Your task to perform on an android device: turn on notifications settings in the gmail app Image 0: 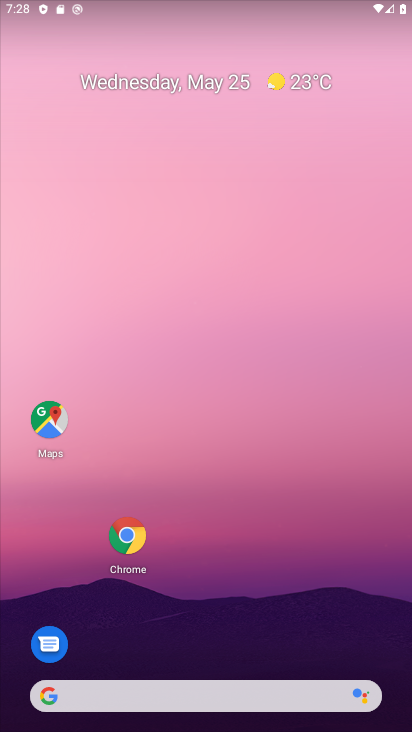
Step 0: drag from (206, 613) to (179, 27)
Your task to perform on an android device: turn on notifications settings in the gmail app Image 1: 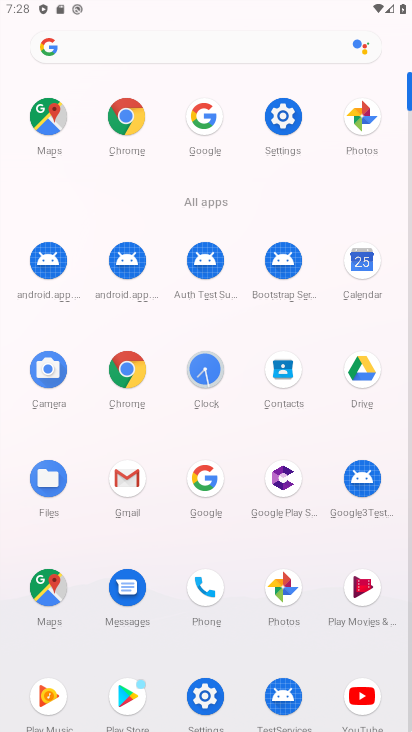
Step 1: click (128, 471)
Your task to perform on an android device: turn on notifications settings in the gmail app Image 2: 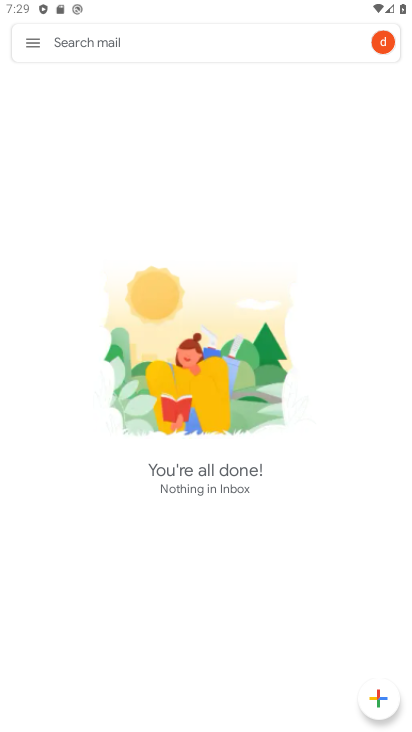
Step 2: click (128, 471)
Your task to perform on an android device: turn on notifications settings in the gmail app Image 3: 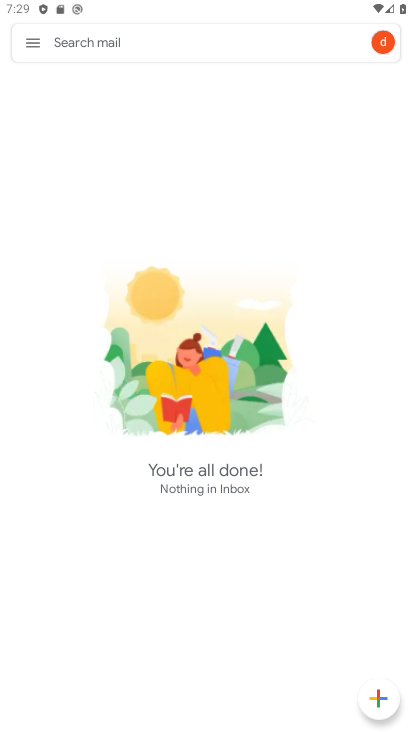
Step 3: click (35, 49)
Your task to perform on an android device: turn on notifications settings in the gmail app Image 4: 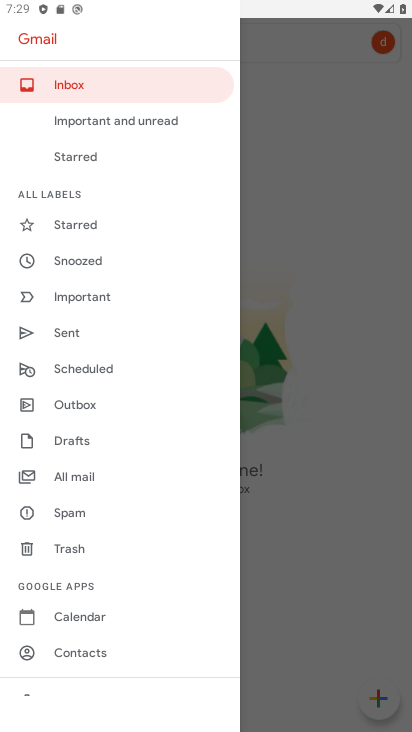
Step 4: drag from (118, 616) to (146, 168)
Your task to perform on an android device: turn on notifications settings in the gmail app Image 5: 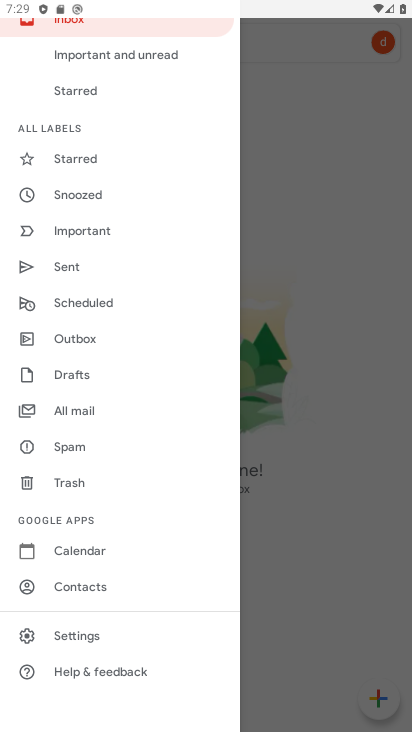
Step 5: click (110, 631)
Your task to perform on an android device: turn on notifications settings in the gmail app Image 6: 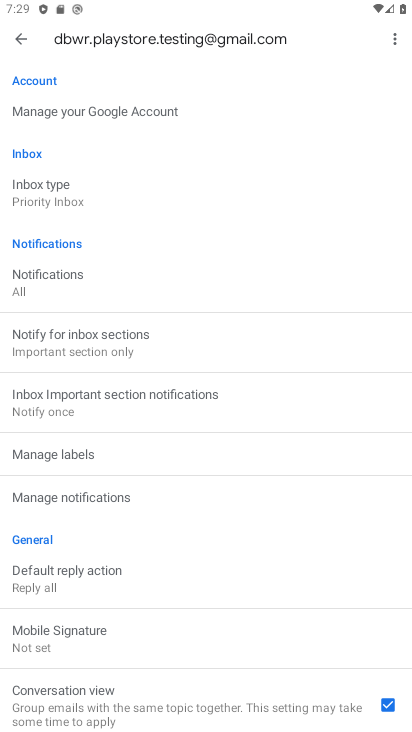
Step 6: click (118, 491)
Your task to perform on an android device: turn on notifications settings in the gmail app Image 7: 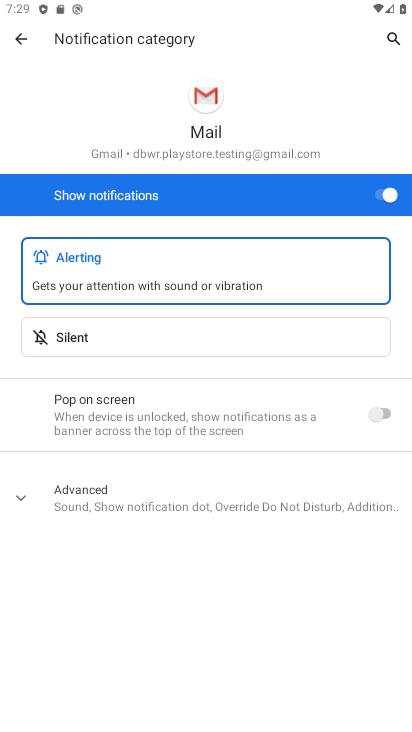
Step 7: task complete